Your task to perform on an android device: Empty the shopping cart on target.com. Add alienware aurora to the cart on target.com, then select checkout. Image 0: 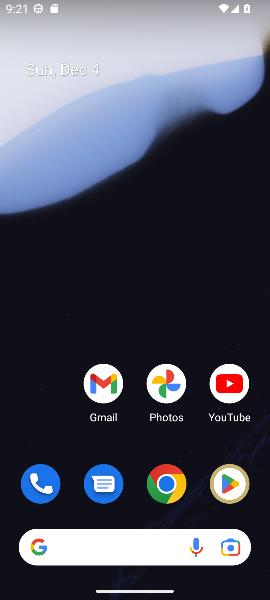
Step 0: click (165, 488)
Your task to perform on an android device: Empty the shopping cart on target.com. Add alienware aurora to the cart on target.com, then select checkout. Image 1: 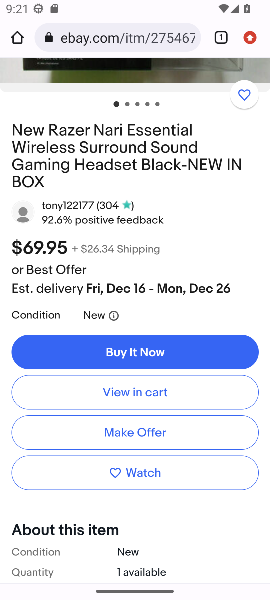
Step 1: click (119, 31)
Your task to perform on an android device: Empty the shopping cart on target.com. Add alienware aurora to the cart on target.com, then select checkout. Image 2: 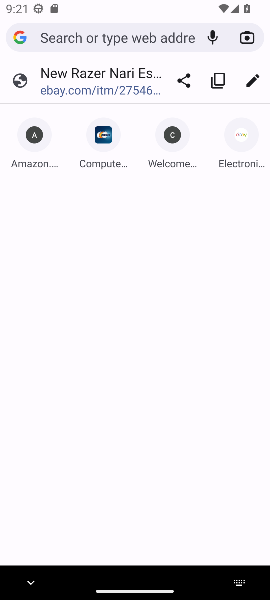
Step 2: type "target.com"
Your task to perform on an android device: Empty the shopping cart on target.com. Add alienware aurora to the cart on target.com, then select checkout. Image 3: 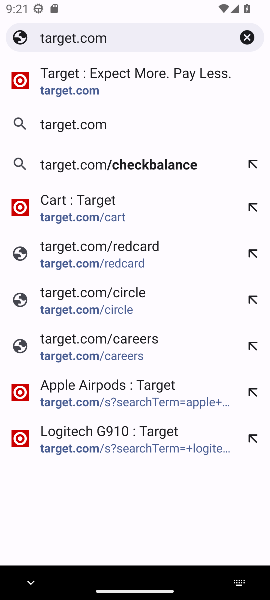
Step 3: click (53, 80)
Your task to perform on an android device: Empty the shopping cart on target.com. Add alienware aurora to the cart on target.com, then select checkout. Image 4: 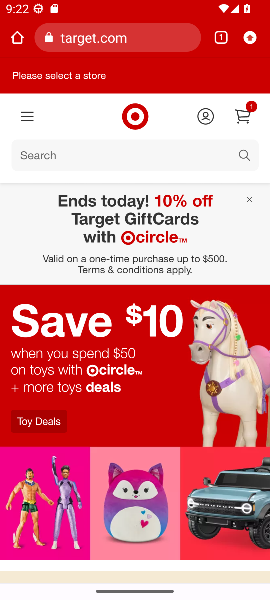
Step 4: click (242, 118)
Your task to perform on an android device: Empty the shopping cart on target.com. Add alienware aurora to the cart on target.com, then select checkout. Image 5: 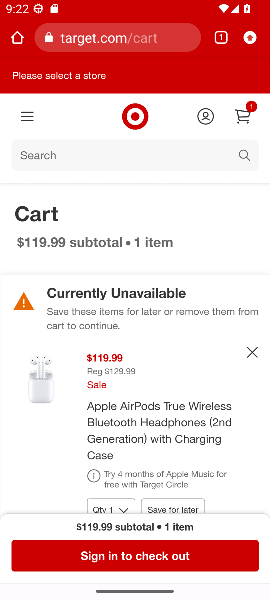
Step 5: click (249, 357)
Your task to perform on an android device: Empty the shopping cart on target.com. Add alienware aurora to the cart on target.com, then select checkout. Image 6: 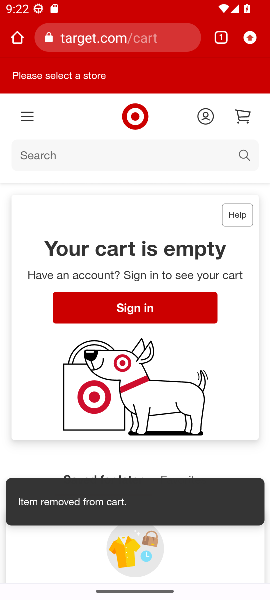
Step 6: drag from (166, 382) to (152, 258)
Your task to perform on an android device: Empty the shopping cart on target.com. Add alienware aurora to the cart on target.com, then select checkout. Image 7: 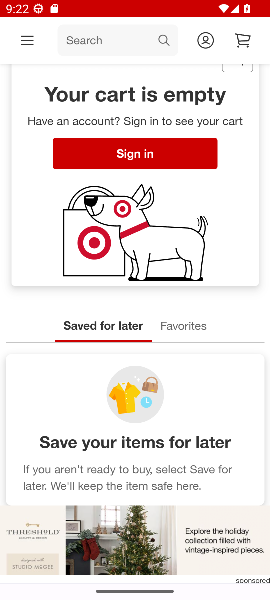
Step 7: click (159, 40)
Your task to perform on an android device: Empty the shopping cart on target.com. Add alienware aurora to the cart on target.com, then select checkout. Image 8: 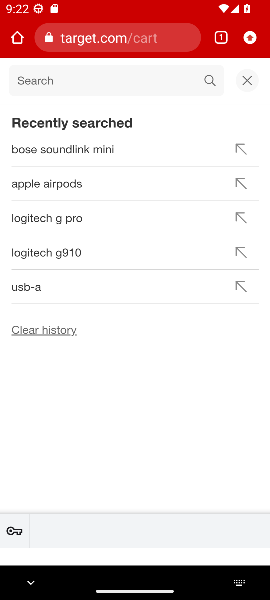
Step 8: type "alienware aurora"
Your task to perform on an android device: Empty the shopping cart on target.com. Add alienware aurora to the cart on target.com, then select checkout. Image 9: 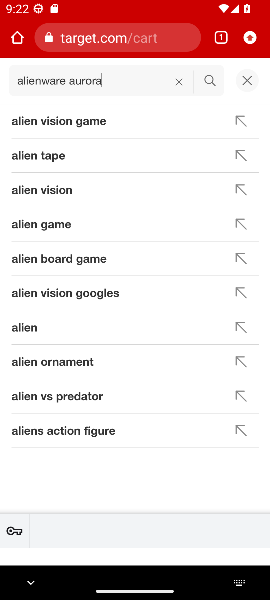
Step 9: click (211, 79)
Your task to perform on an android device: Empty the shopping cart on target.com. Add alienware aurora to the cart on target.com, then select checkout. Image 10: 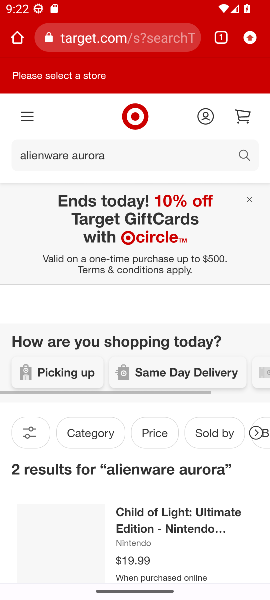
Step 10: task complete